Your task to perform on an android device: Open location settings Image 0: 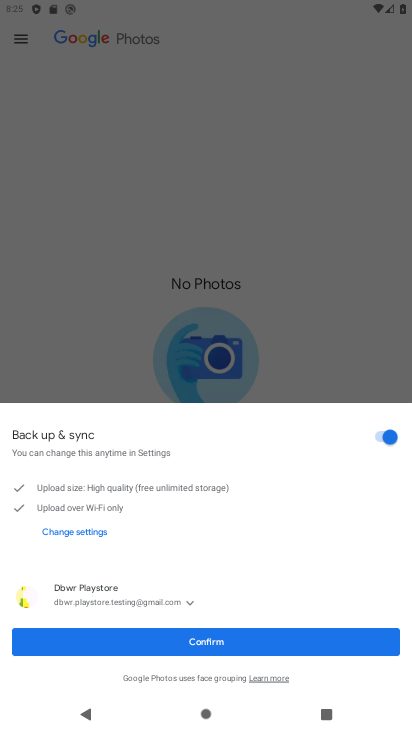
Step 0: press home button
Your task to perform on an android device: Open location settings Image 1: 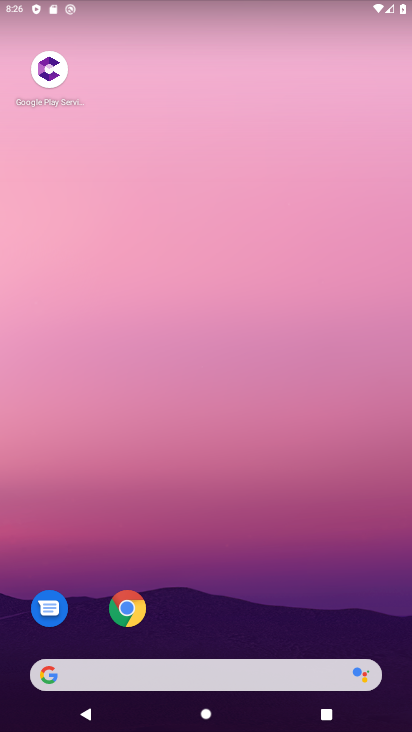
Step 1: drag from (236, 688) to (325, 241)
Your task to perform on an android device: Open location settings Image 2: 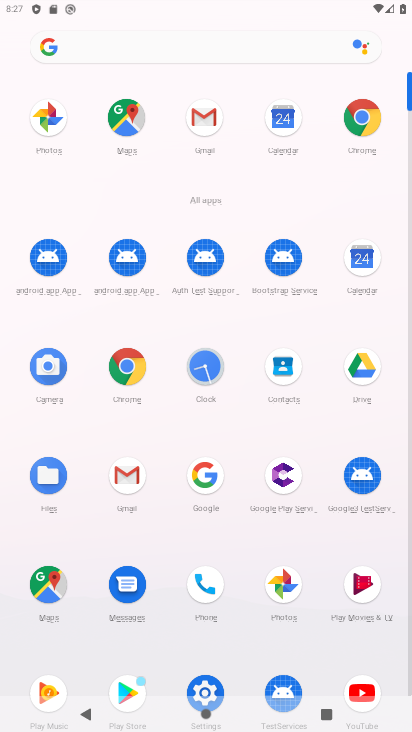
Step 2: click (121, 127)
Your task to perform on an android device: Open location settings Image 3: 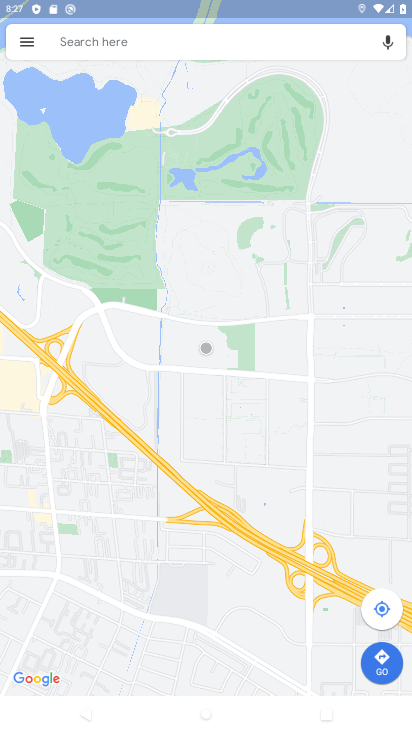
Step 3: click (220, 305)
Your task to perform on an android device: Open location settings Image 4: 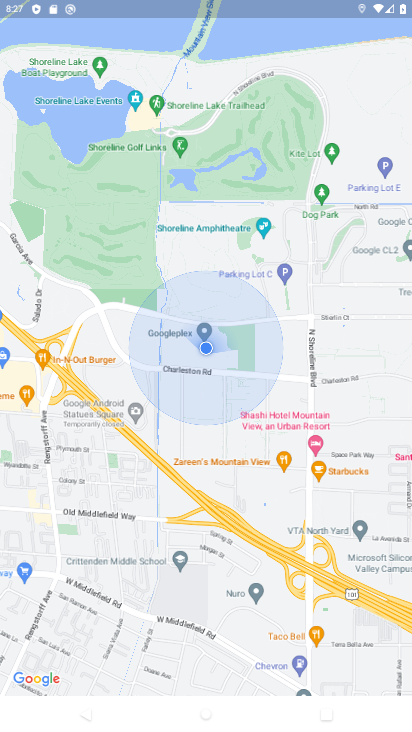
Step 4: click (31, 33)
Your task to perform on an android device: Open location settings Image 5: 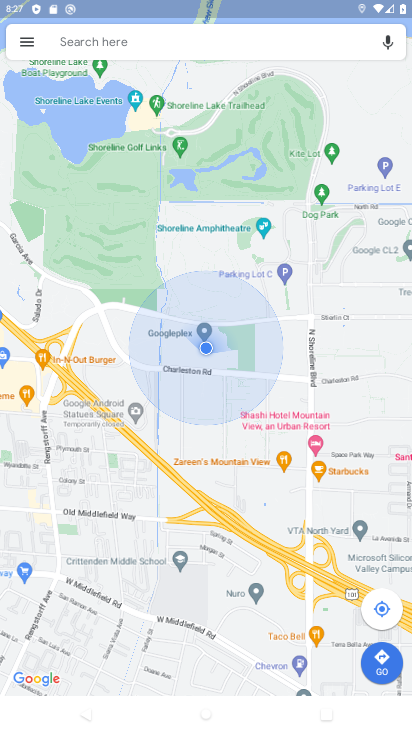
Step 5: task complete